Your task to perform on an android device: turn off translation in the chrome app Image 0: 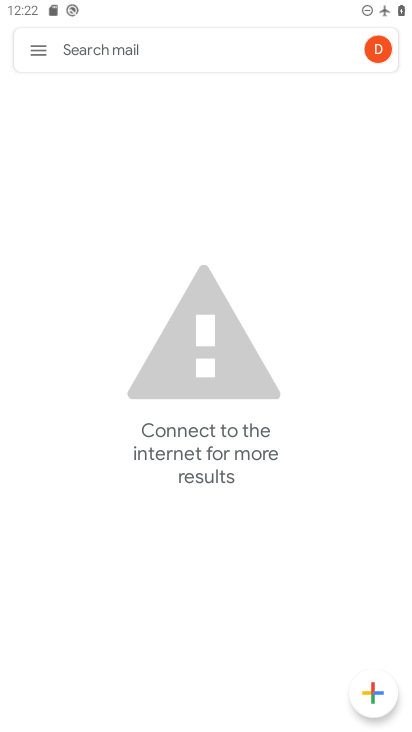
Step 0: drag from (371, 7) to (385, 319)
Your task to perform on an android device: turn off translation in the chrome app Image 1: 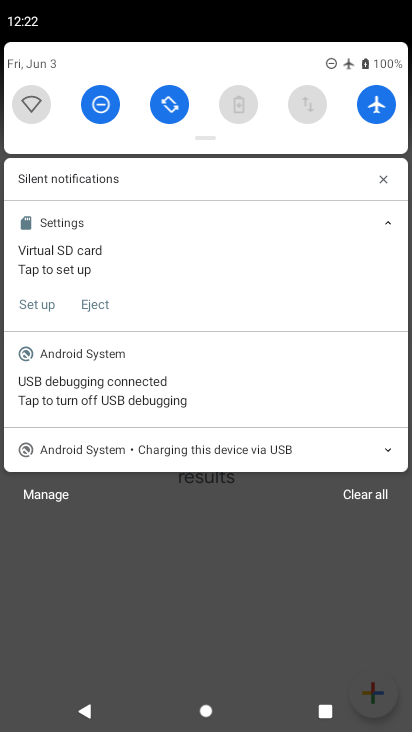
Step 1: click (383, 105)
Your task to perform on an android device: turn off translation in the chrome app Image 2: 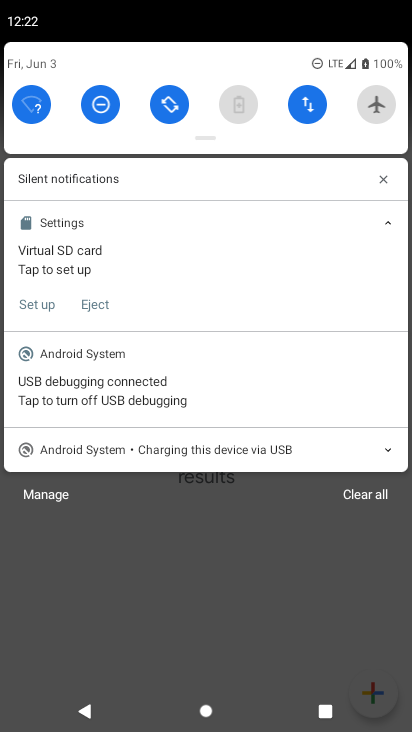
Step 2: press home button
Your task to perform on an android device: turn off translation in the chrome app Image 3: 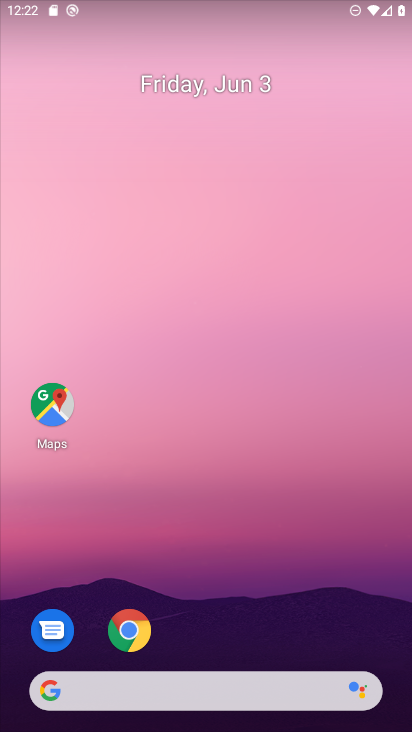
Step 3: click (122, 627)
Your task to perform on an android device: turn off translation in the chrome app Image 4: 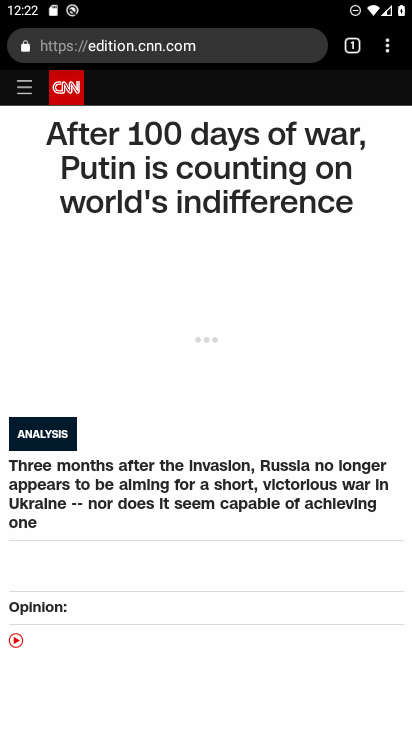
Step 4: click (387, 45)
Your task to perform on an android device: turn off translation in the chrome app Image 5: 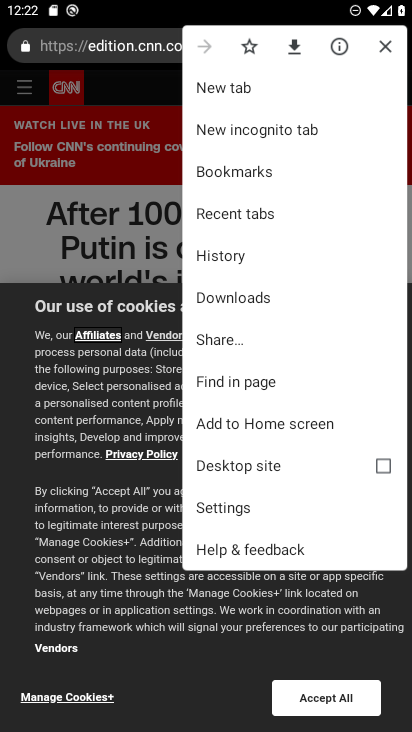
Step 5: click (253, 508)
Your task to perform on an android device: turn off translation in the chrome app Image 6: 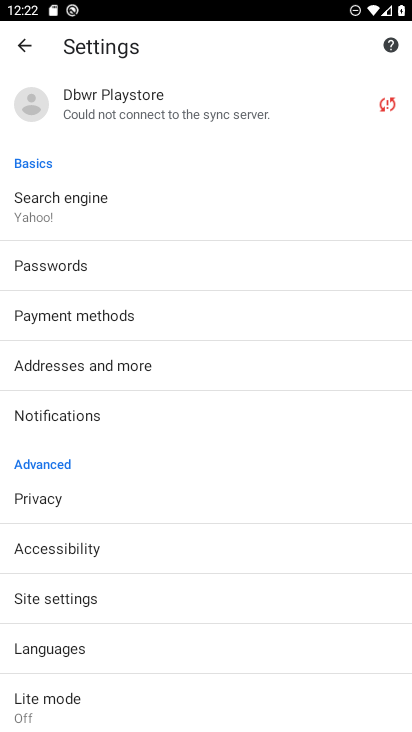
Step 6: drag from (153, 662) to (141, 430)
Your task to perform on an android device: turn off translation in the chrome app Image 7: 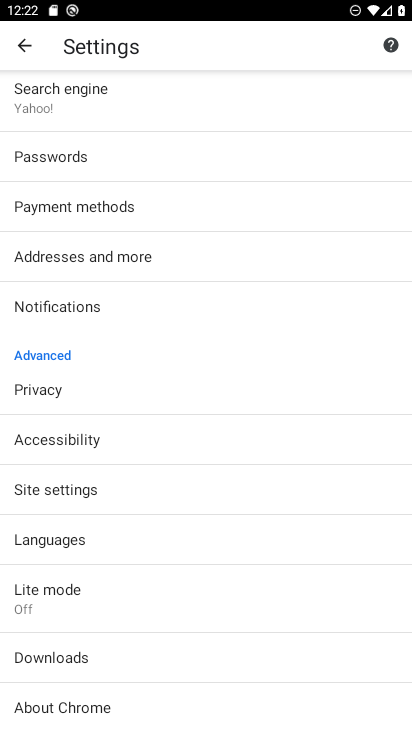
Step 7: click (128, 537)
Your task to perform on an android device: turn off translation in the chrome app Image 8: 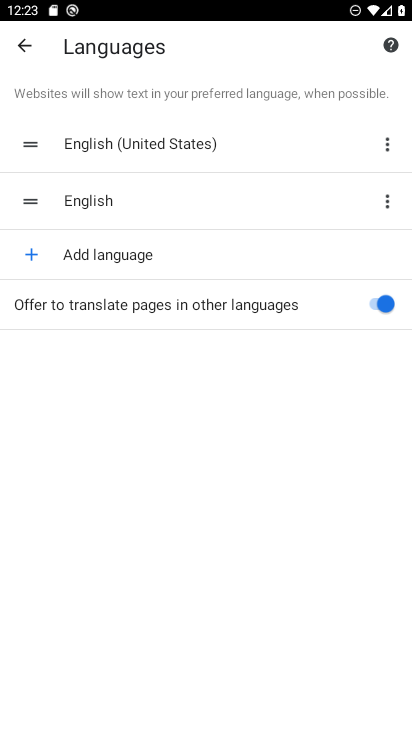
Step 8: click (382, 310)
Your task to perform on an android device: turn off translation in the chrome app Image 9: 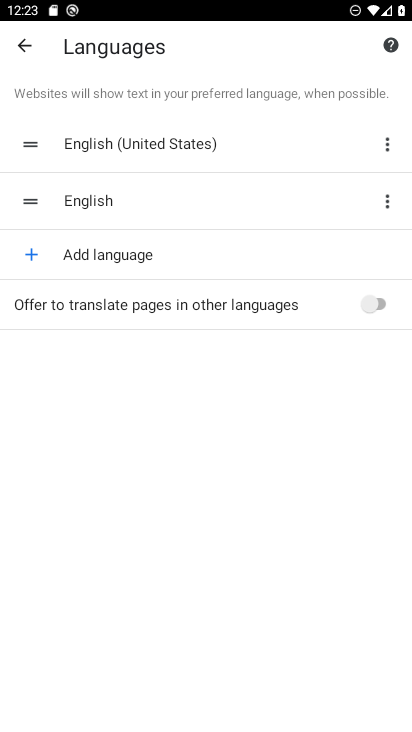
Step 9: task complete